Your task to perform on an android device: install app "Move to iOS" Image 0: 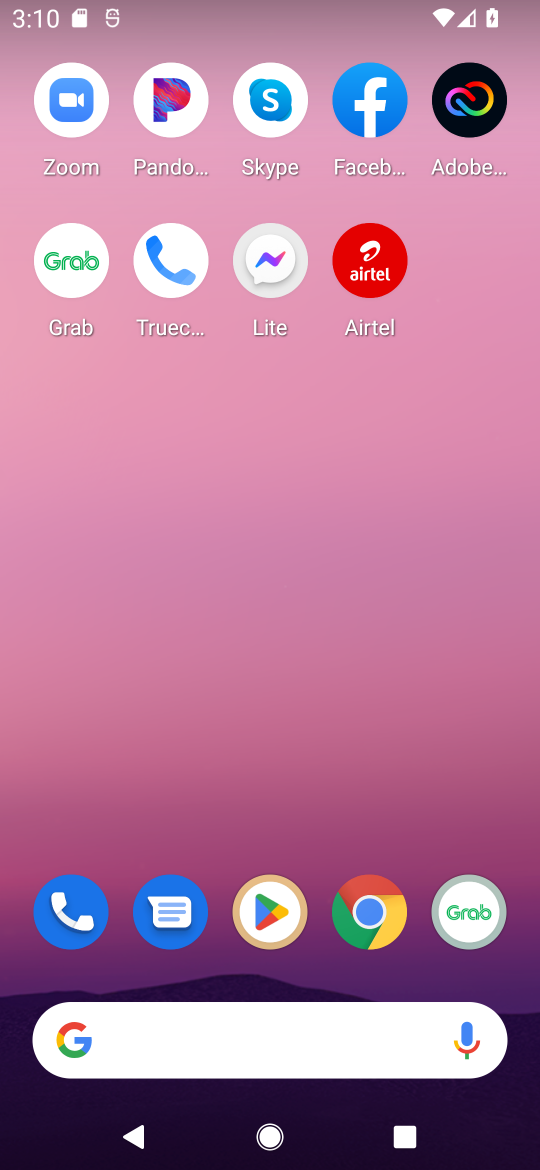
Step 0: drag from (208, 1052) to (330, 50)
Your task to perform on an android device: install app "Move to iOS" Image 1: 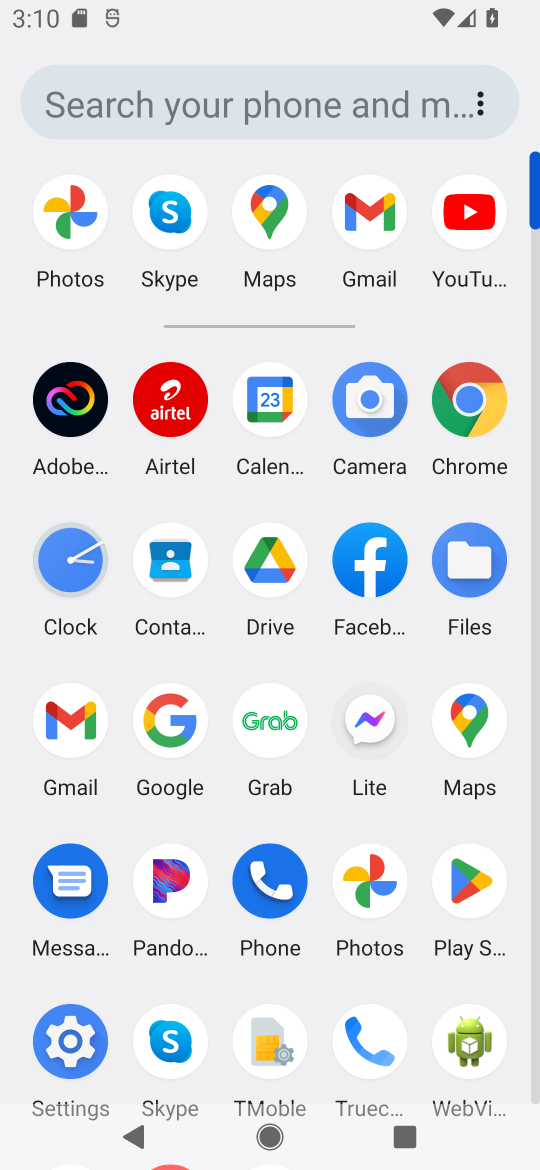
Step 1: click (472, 873)
Your task to perform on an android device: install app "Move to iOS" Image 2: 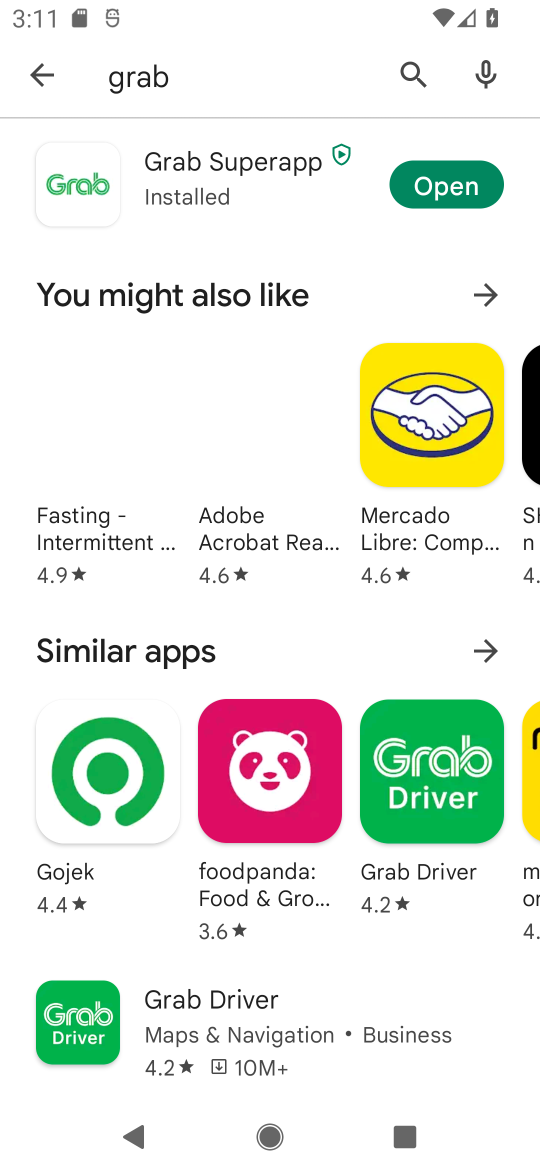
Step 2: press back button
Your task to perform on an android device: install app "Move to iOS" Image 3: 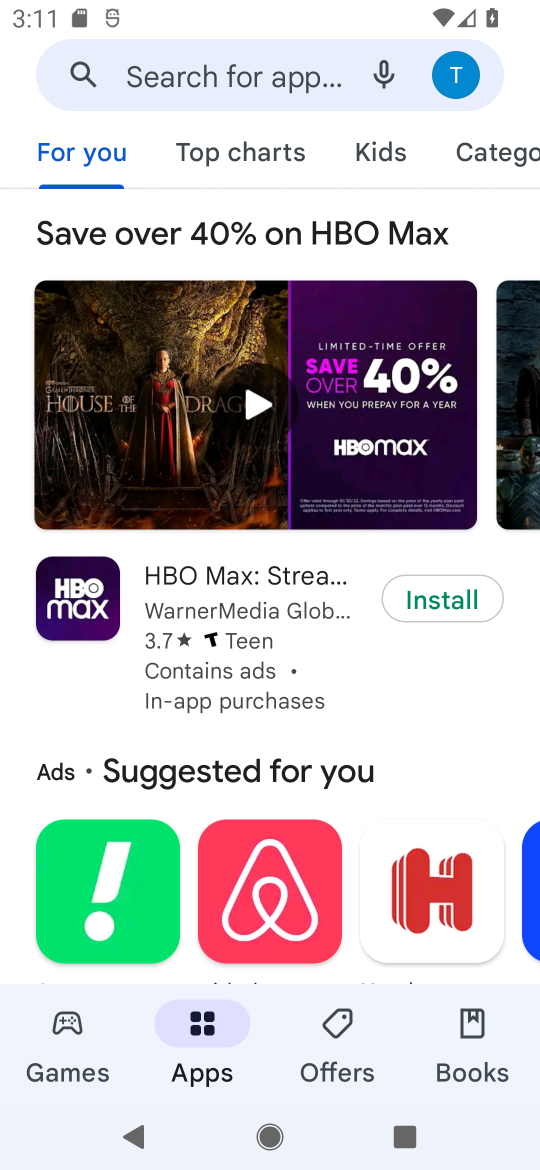
Step 3: click (189, 74)
Your task to perform on an android device: install app "Move to iOS" Image 4: 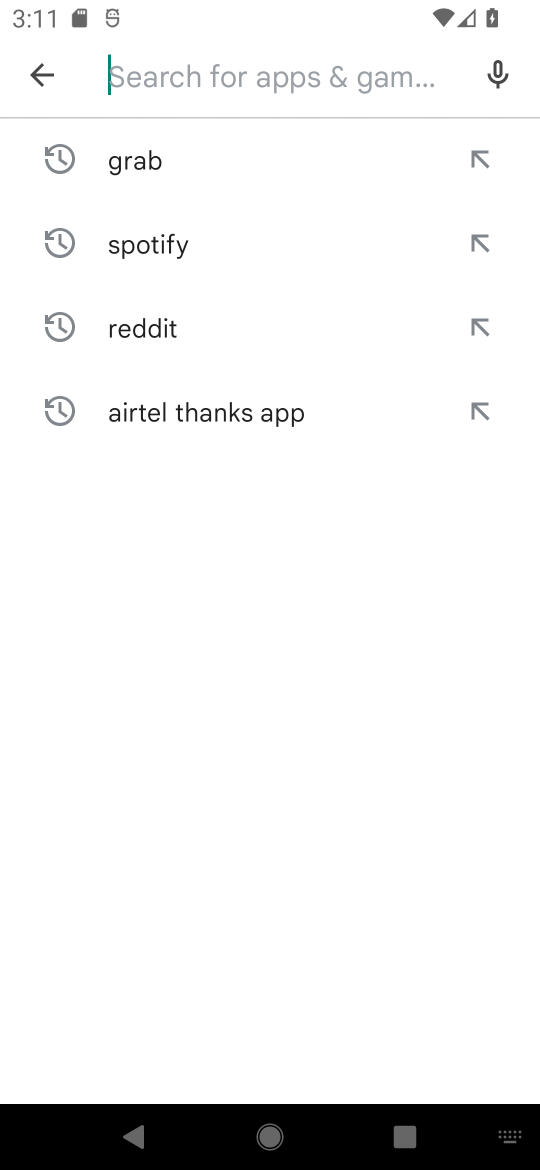
Step 4: type "Move to iOS"
Your task to perform on an android device: install app "Move to iOS" Image 5: 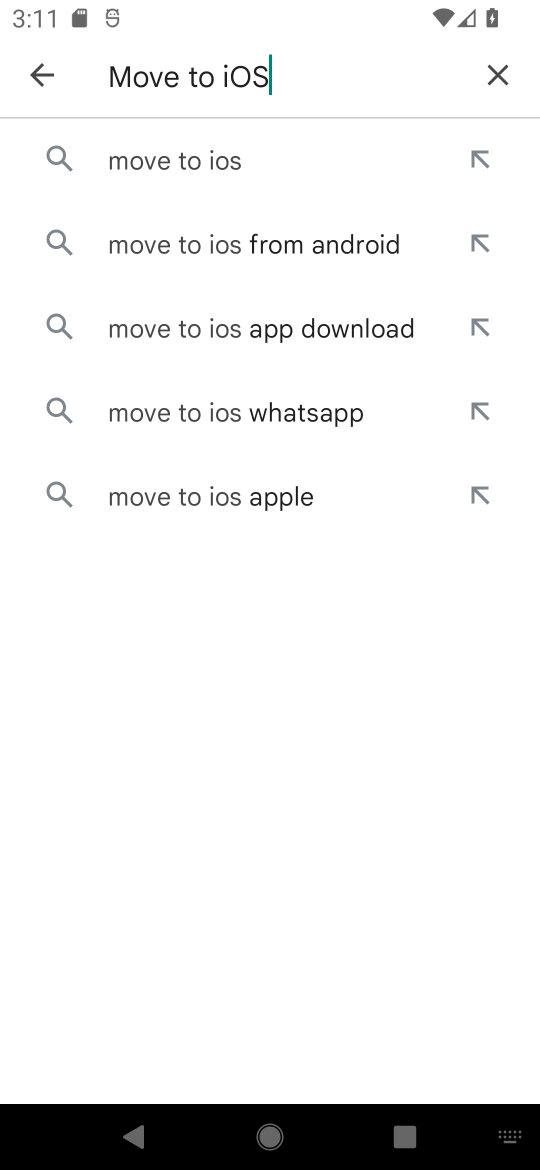
Step 5: click (211, 166)
Your task to perform on an android device: install app "Move to iOS" Image 6: 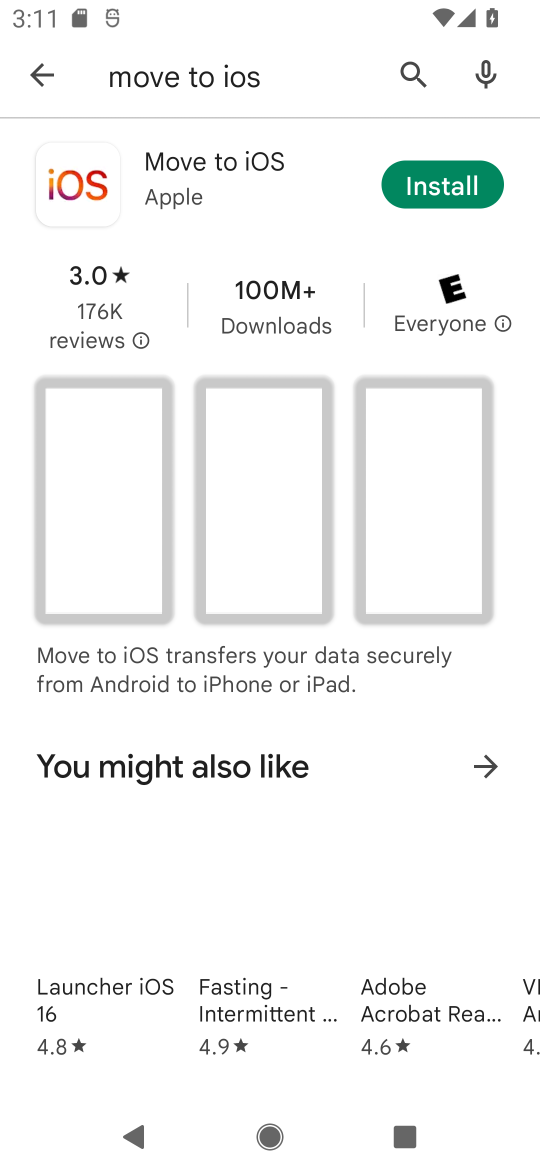
Step 6: click (445, 184)
Your task to perform on an android device: install app "Move to iOS" Image 7: 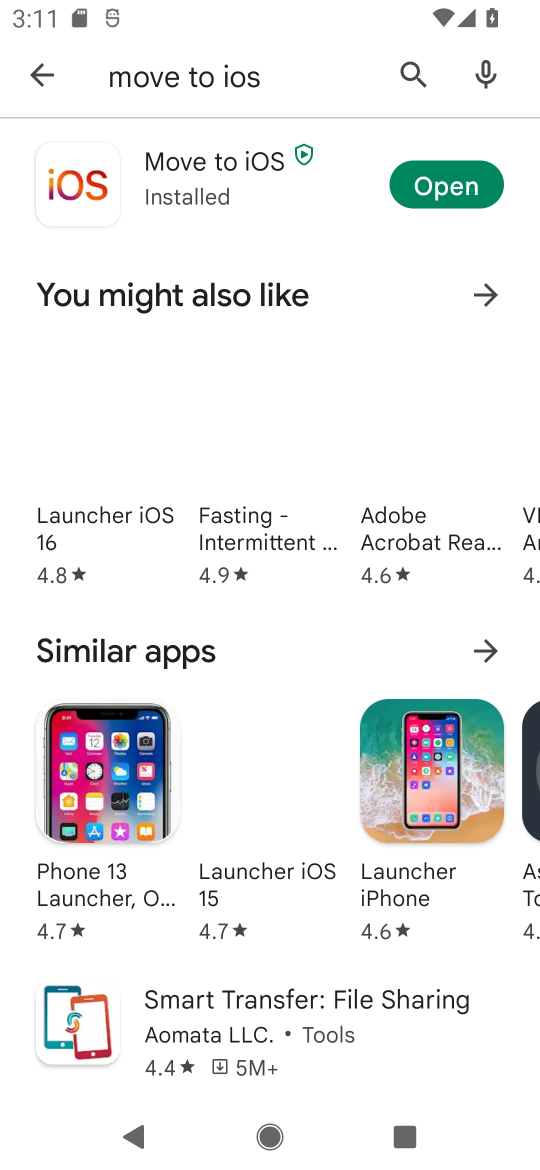
Step 7: task complete